Your task to perform on an android device: Show the shopping cart on walmart. Image 0: 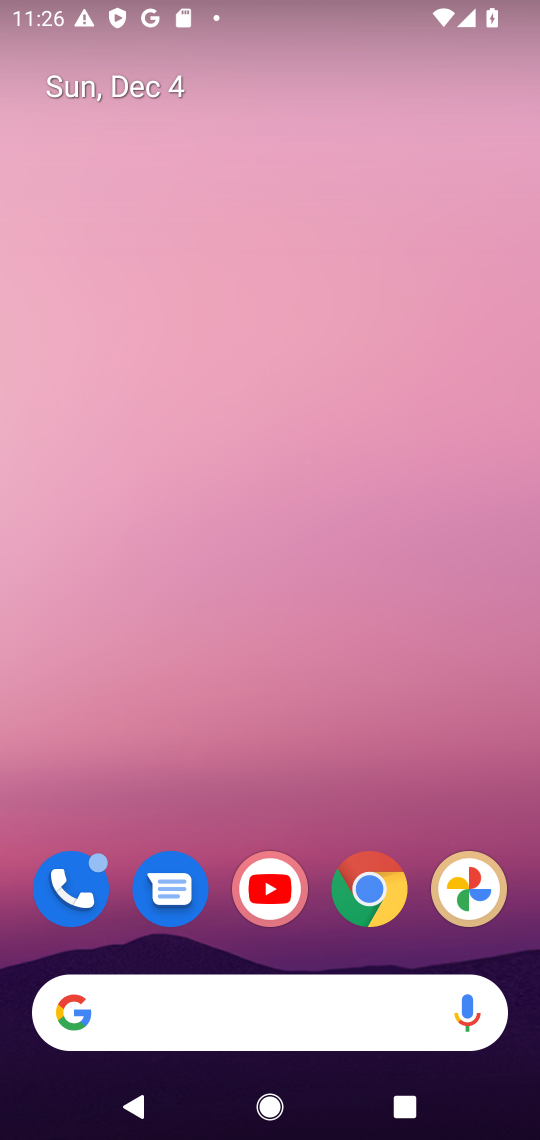
Step 0: click (376, 890)
Your task to perform on an android device: Show the shopping cart on walmart. Image 1: 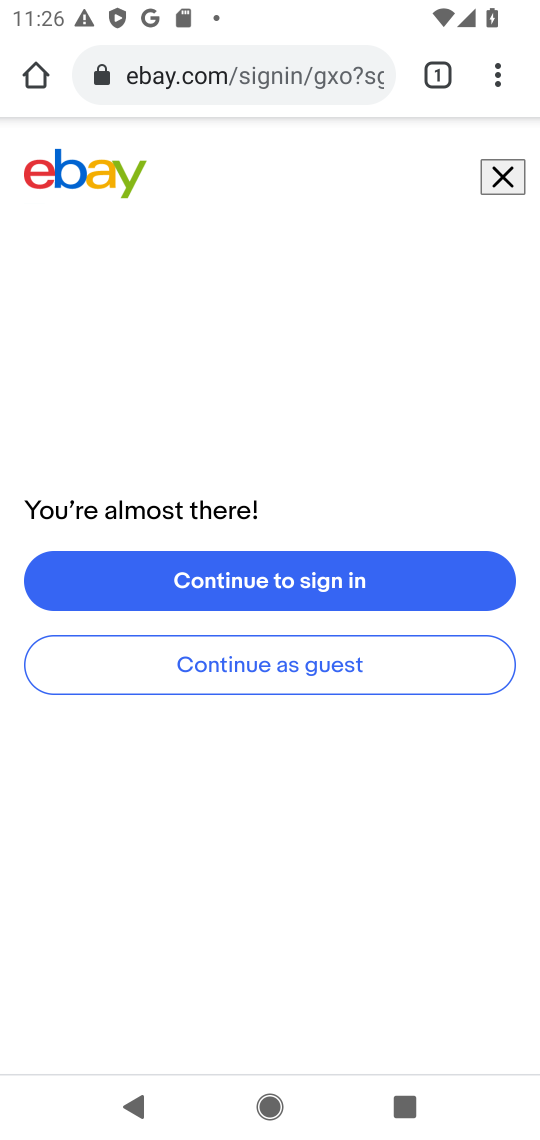
Step 1: click (311, 60)
Your task to perform on an android device: Show the shopping cart on walmart. Image 2: 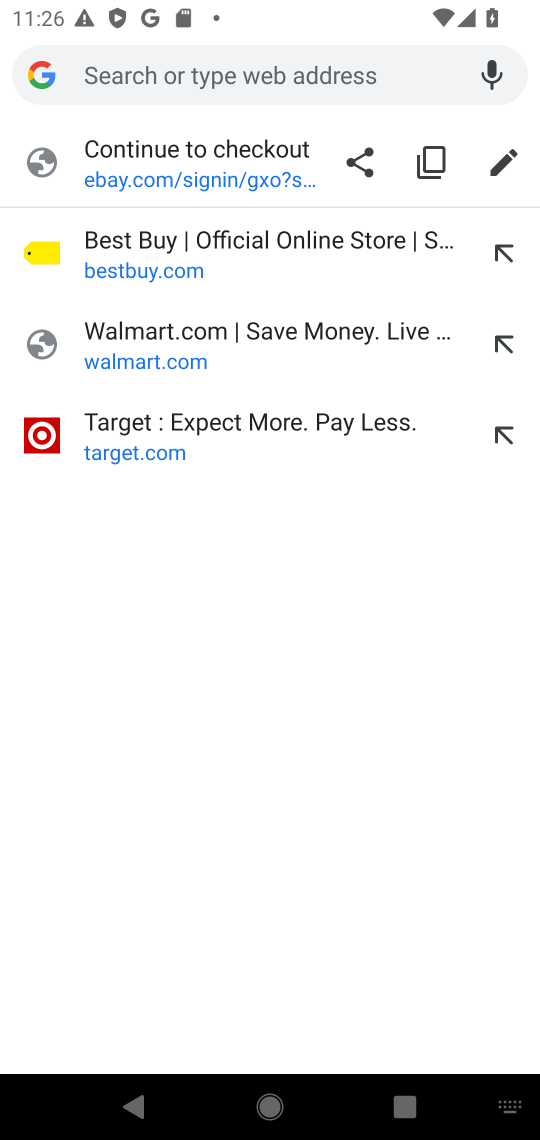
Step 2: click (273, 328)
Your task to perform on an android device: Show the shopping cart on walmart. Image 3: 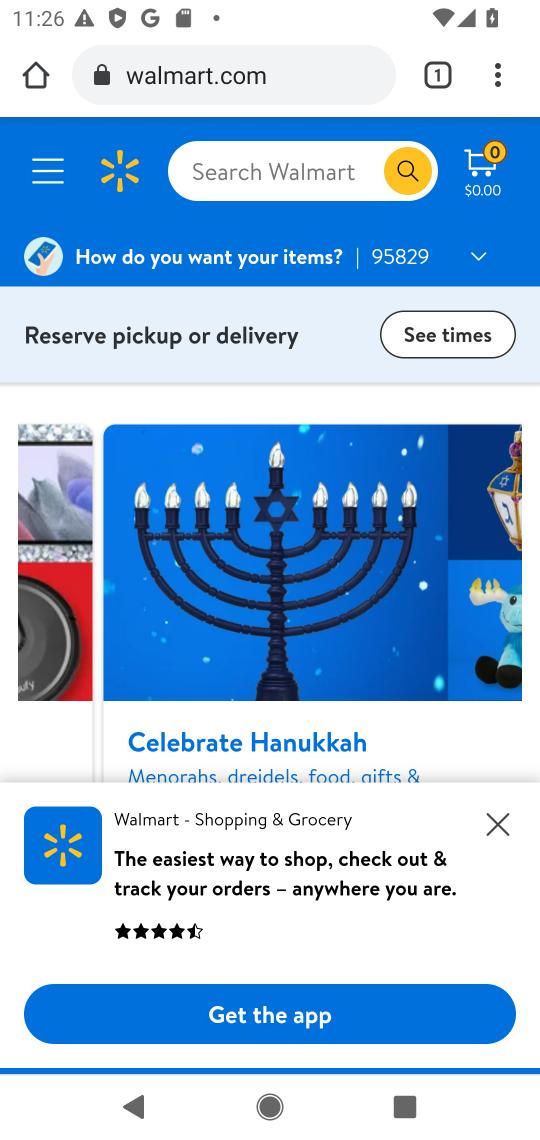
Step 3: click (481, 164)
Your task to perform on an android device: Show the shopping cart on walmart. Image 4: 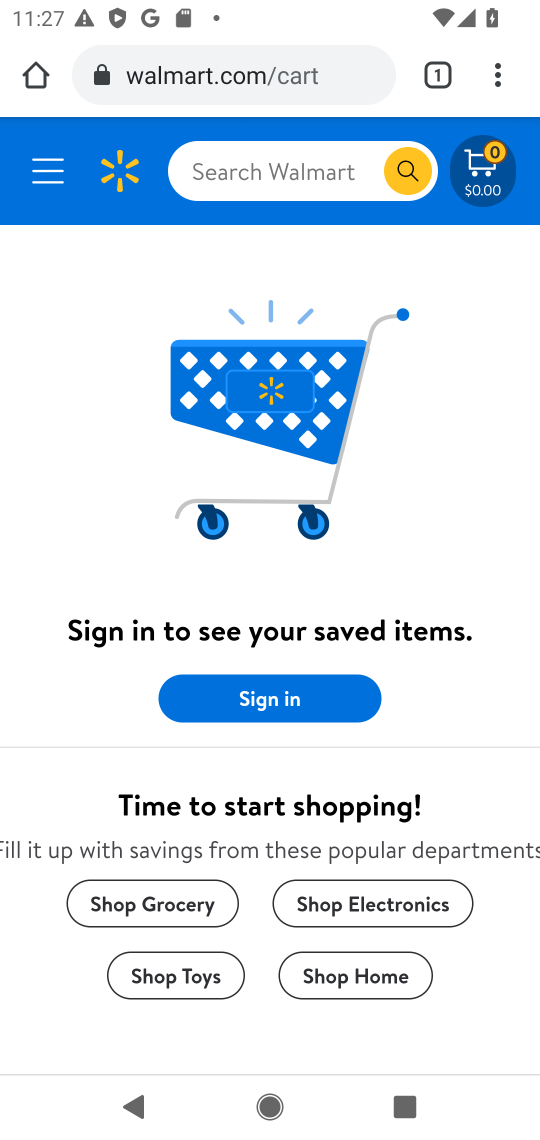
Step 4: task complete